Your task to perform on an android device: allow cookies in the chrome app Image 0: 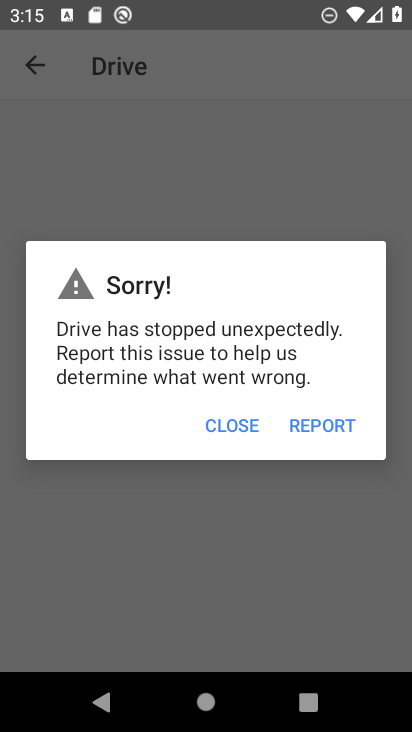
Step 0: press home button
Your task to perform on an android device: allow cookies in the chrome app Image 1: 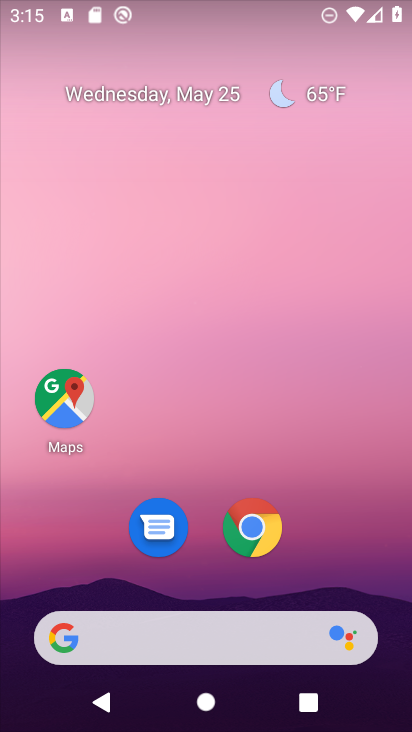
Step 1: drag from (213, 631) to (293, 8)
Your task to perform on an android device: allow cookies in the chrome app Image 2: 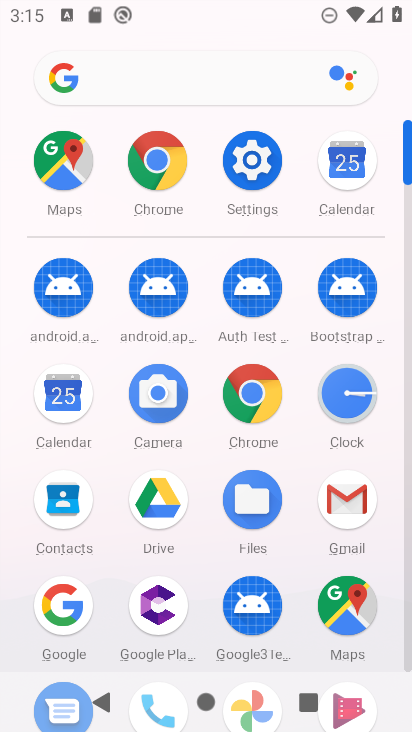
Step 2: click (249, 398)
Your task to perform on an android device: allow cookies in the chrome app Image 3: 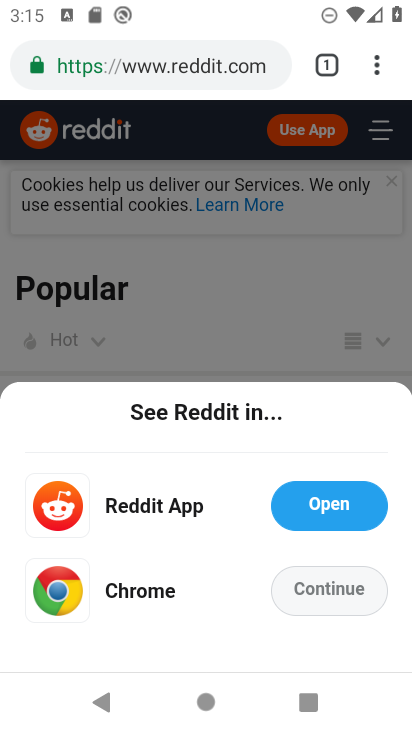
Step 3: drag from (366, 51) to (153, 589)
Your task to perform on an android device: allow cookies in the chrome app Image 4: 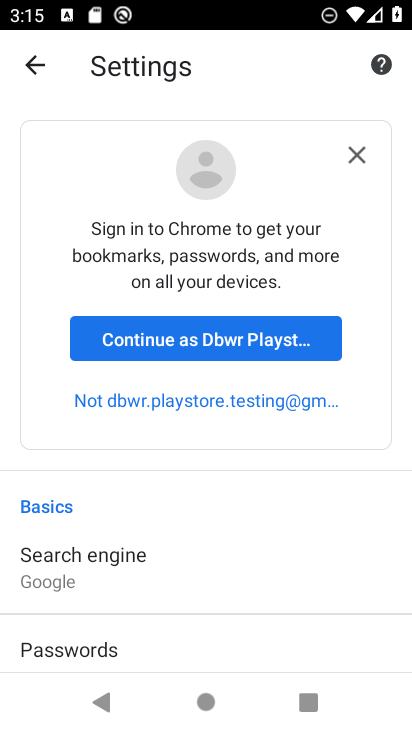
Step 4: drag from (279, 577) to (282, 137)
Your task to perform on an android device: allow cookies in the chrome app Image 5: 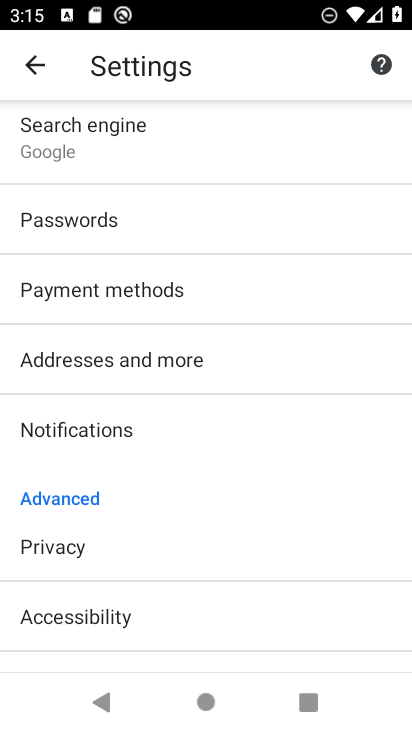
Step 5: drag from (143, 604) to (187, 170)
Your task to perform on an android device: allow cookies in the chrome app Image 6: 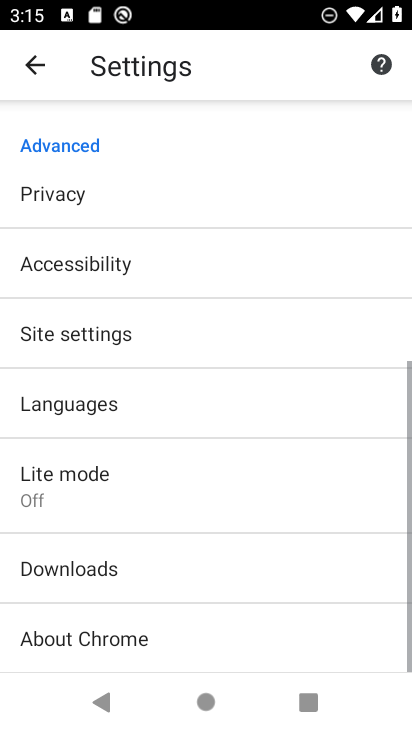
Step 6: click (113, 342)
Your task to perform on an android device: allow cookies in the chrome app Image 7: 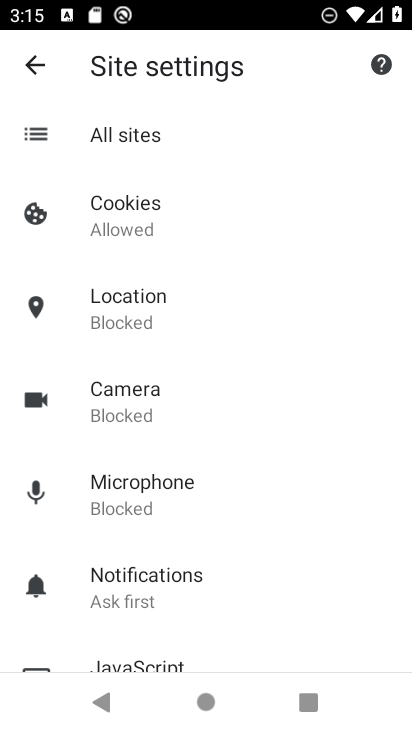
Step 7: click (136, 218)
Your task to perform on an android device: allow cookies in the chrome app Image 8: 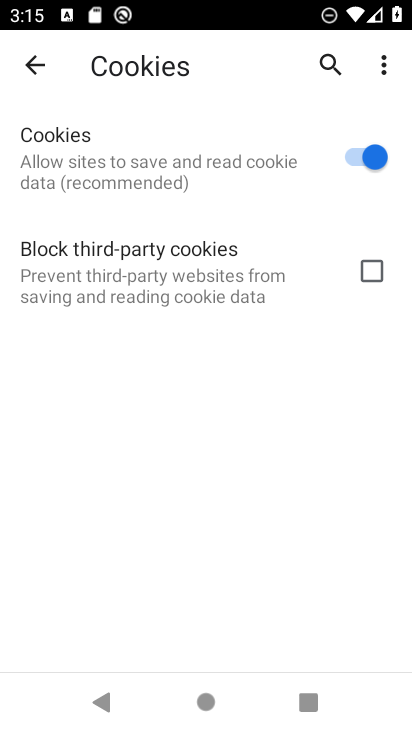
Step 8: task complete